Your task to perform on an android device: Is it going to rain tomorrow? Image 0: 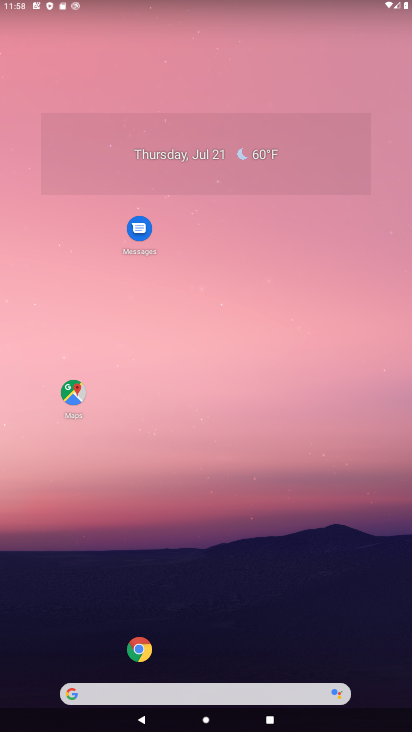
Step 0: click (128, 693)
Your task to perform on an android device: Is it going to rain tomorrow? Image 1: 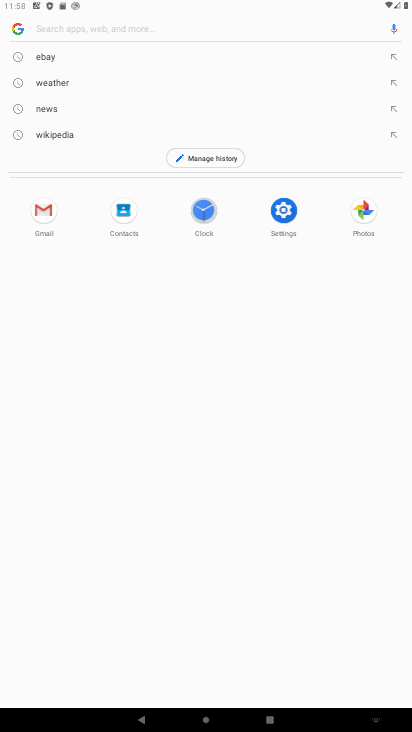
Step 1: type "Is it going to rain tomorrow?"
Your task to perform on an android device: Is it going to rain tomorrow? Image 2: 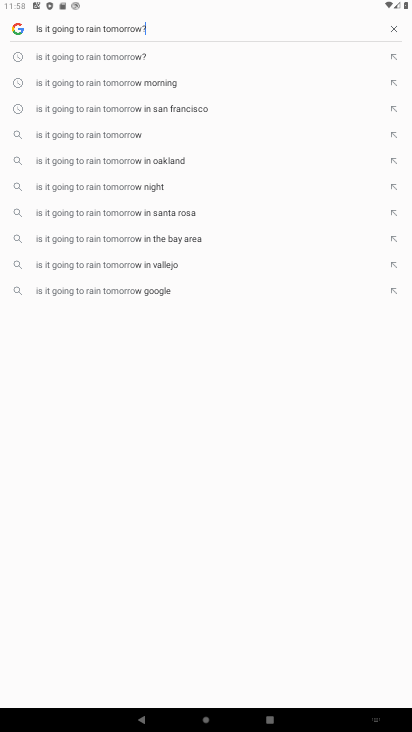
Step 2: type ""
Your task to perform on an android device: Is it going to rain tomorrow? Image 3: 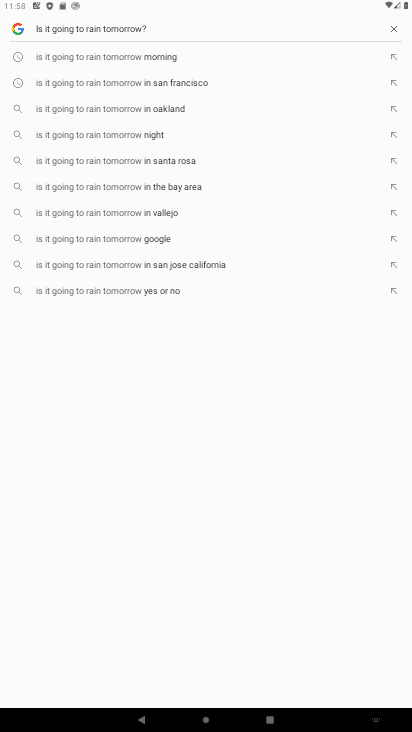
Step 3: type ""
Your task to perform on an android device: Is it going to rain tomorrow? Image 4: 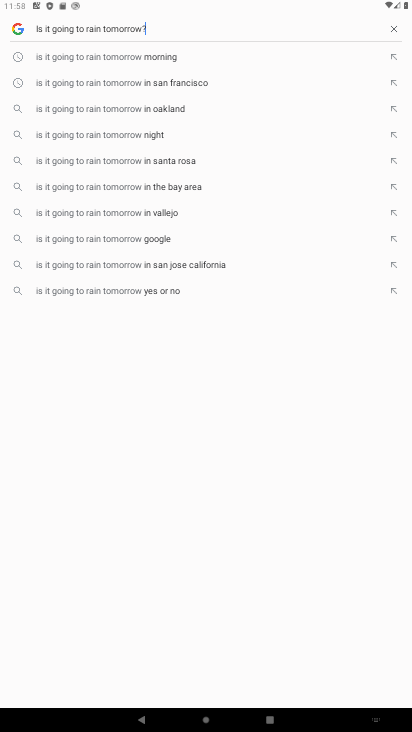
Step 4: type ""
Your task to perform on an android device: Is it going to rain tomorrow? Image 5: 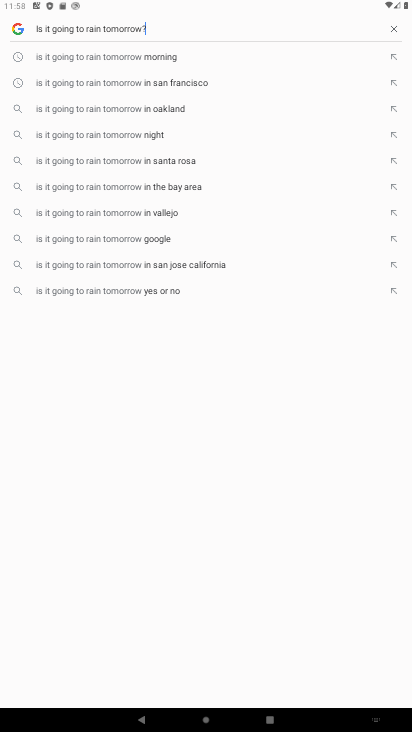
Step 5: task complete